Your task to perform on an android device: empty trash in the gmail app Image 0: 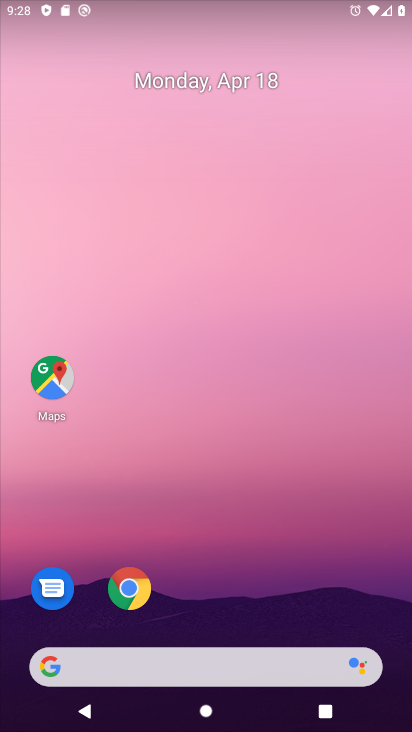
Step 0: drag from (217, 386) to (249, 185)
Your task to perform on an android device: empty trash in the gmail app Image 1: 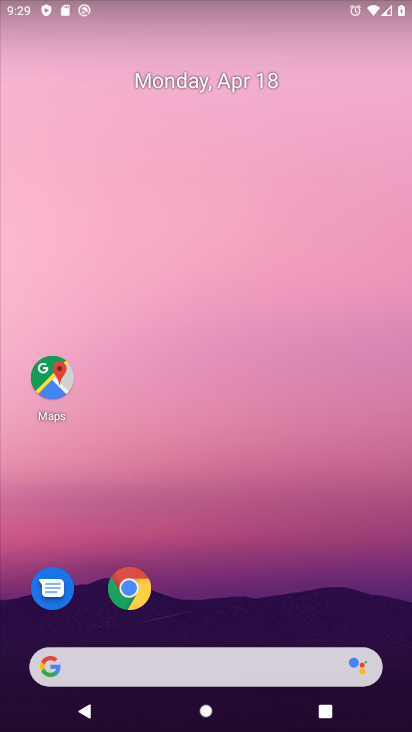
Step 1: drag from (252, 529) to (252, 187)
Your task to perform on an android device: empty trash in the gmail app Image 2: 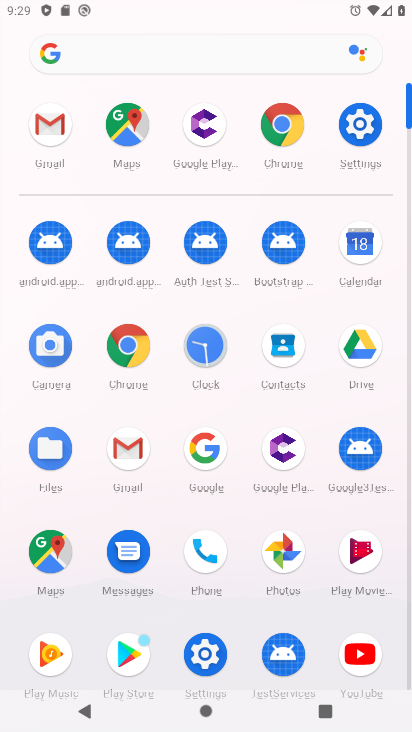
Step 2: click (125, 452)
Your task to perform on an android device: empty trash in the gmail app Image 3: 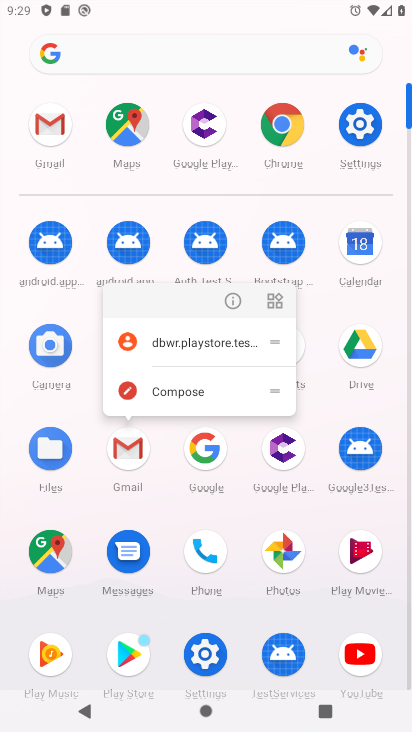
Step 3: click (117, 440)
Your task to perform on an android device: empty trash in the gmail app Image 4: 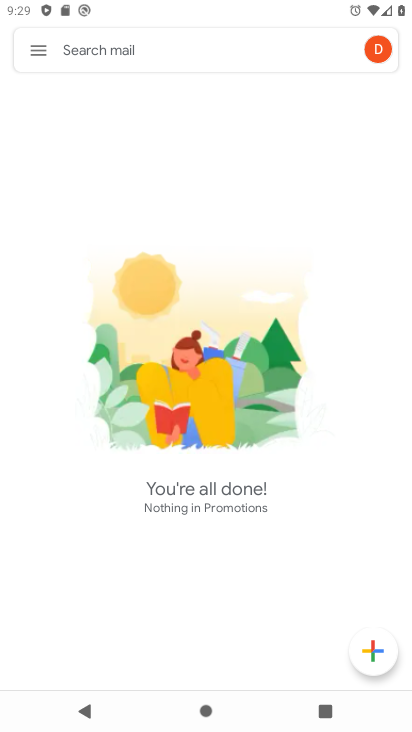
Step 4: click (46, 53)
Your task to perform on an android device: empty trash in the gmail app Image 5: 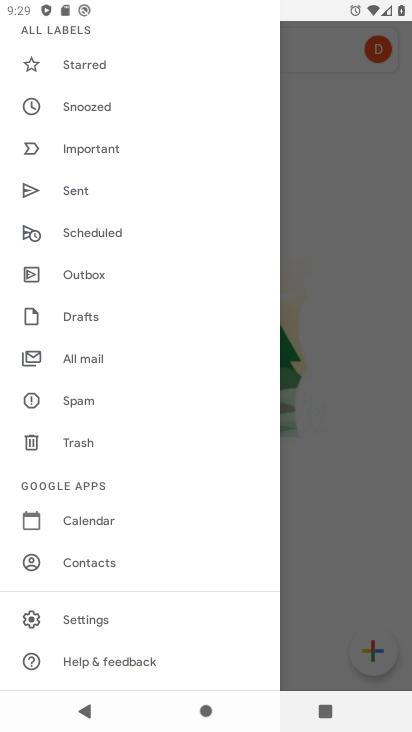
Step 5: click (91, 449)
Your task to perform on an android device: empty trash in the gmail app Image 6: 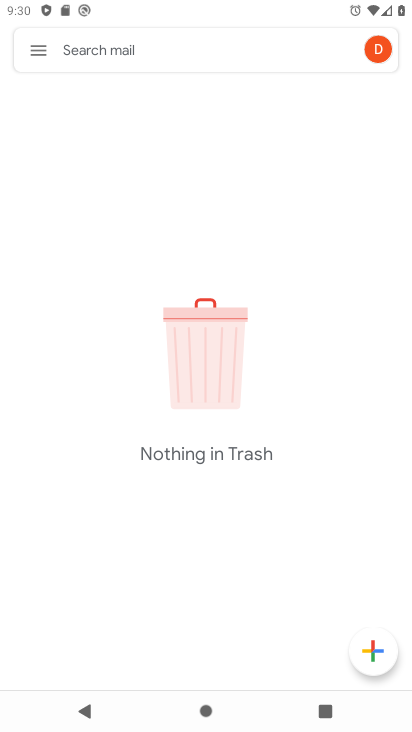
Step 6: task complete